Your task to perform on an android device: see sites visited before in the chrome app Image 0: 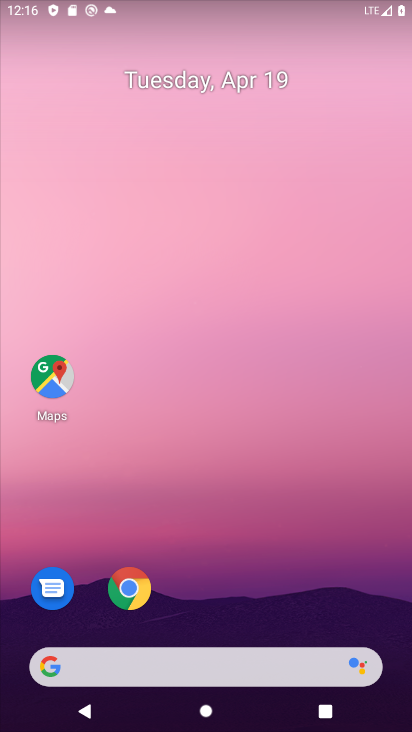
Step 0: drag from (378, 577) to (392, 86)
Your task to perform on an android device: see sites visited before in the chrome app Image 1: 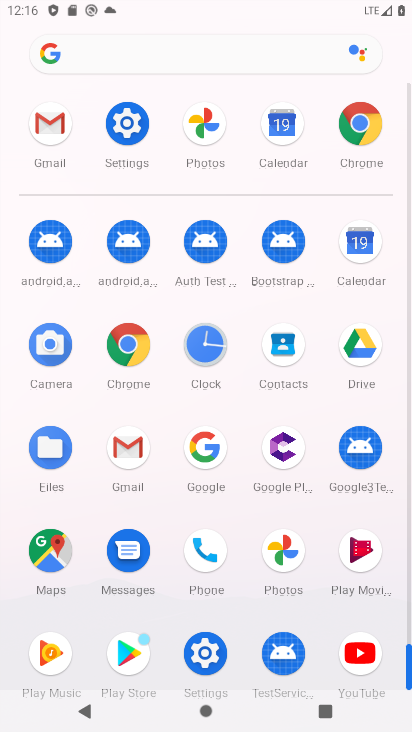
Step 1: click (128, 349)
Your task to perform on an android device: see sites visited before in the chrome app Image 2: 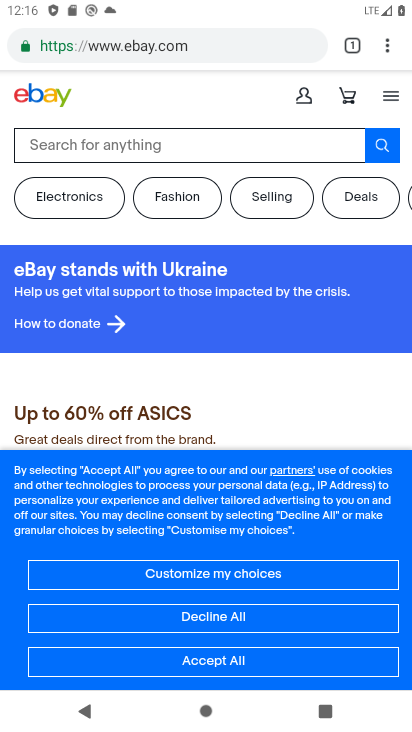
Step 2: click (384, 51)
Your task to perform on an android device: see sites visited before in the chrome app Image 3: 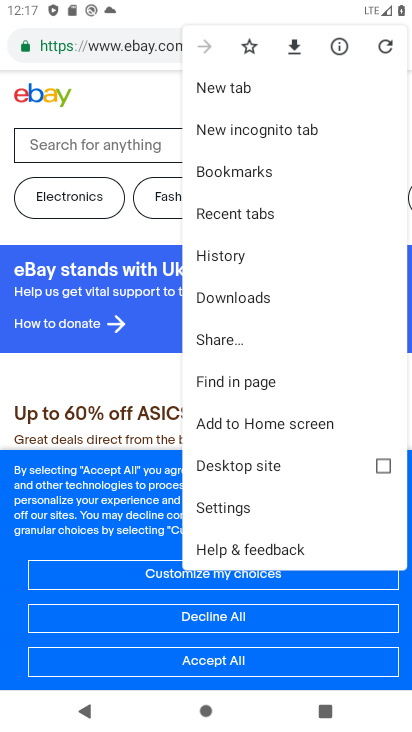
Step 3: click (238, 260)
Your task to perform on an android device: see sites visited before in the chrome app Image 4: 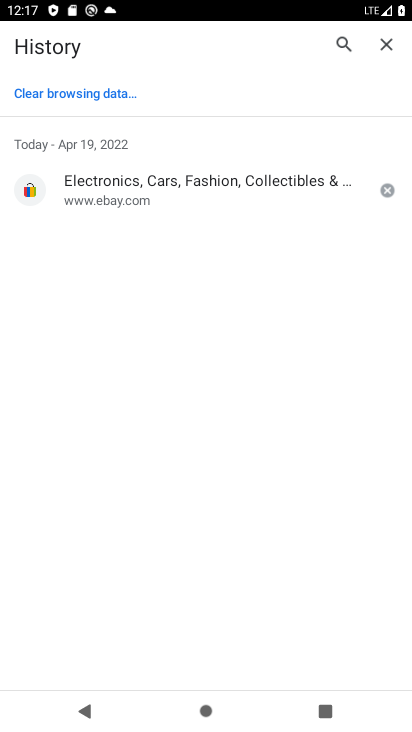
Step 4: task complete